Your task to perform on an android device: toggle sleep mode Image 0: 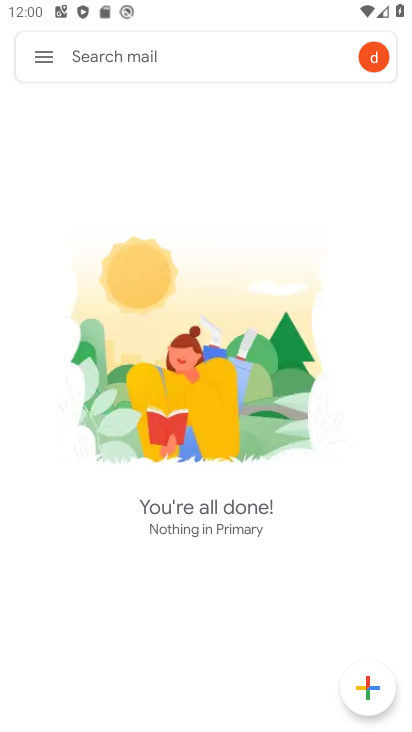
Step 0: press home button
Your task to perform on an android device: toggle sleep mode Image 1: 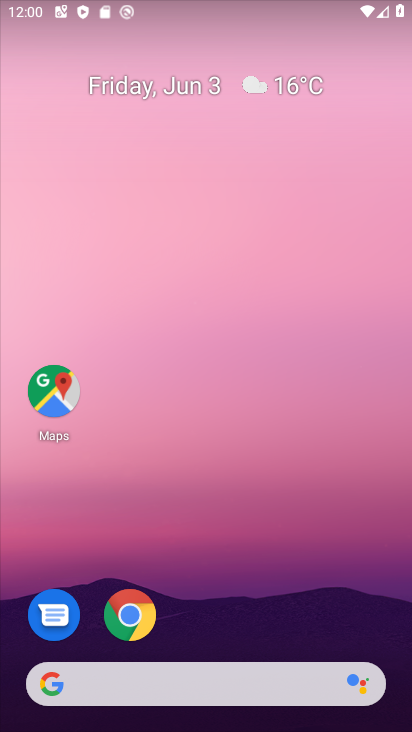
Step 1: drag from (189, 557) to (167, 262)
Your task to perform on an android device: toggle sleep mode Image 2: 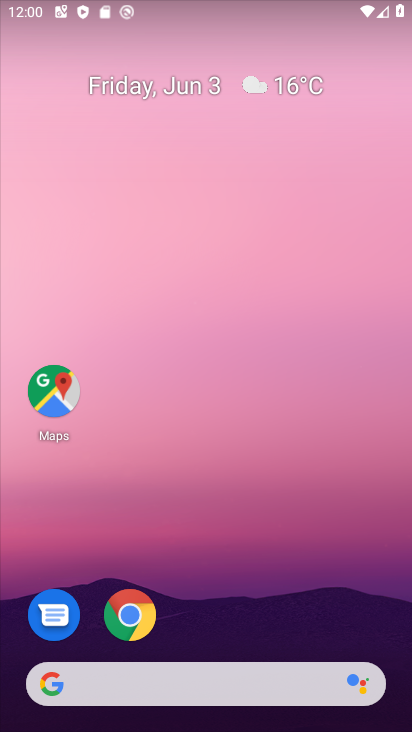
Step 2: drag from (247, 567) to (247, 328)
Your task to perform on an android device: toggle sleep mode Image 3: 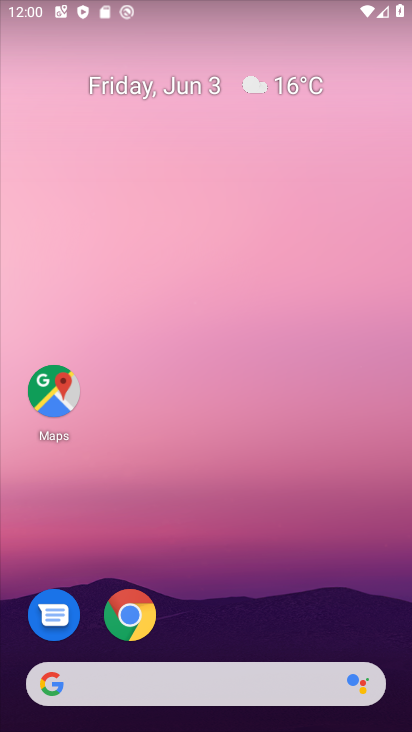
Step 3: drag from (242, 659) to (226, 213)
Your task to perform on an android device: toggle sleep mode Image 4: 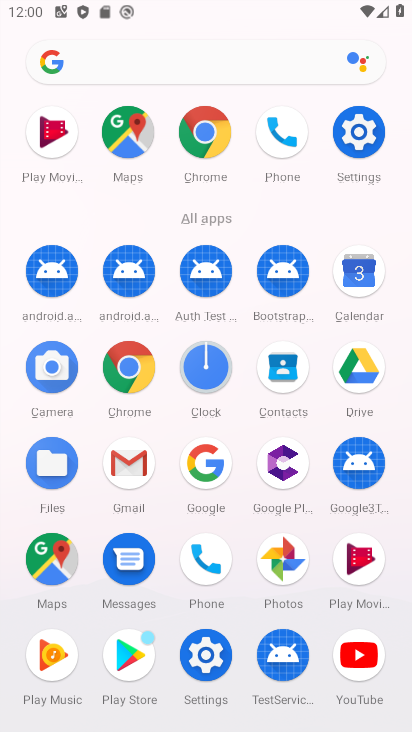
Step 4: click (350, 126)
Your task to perform on an android device: toggle sleep mode Image 5: 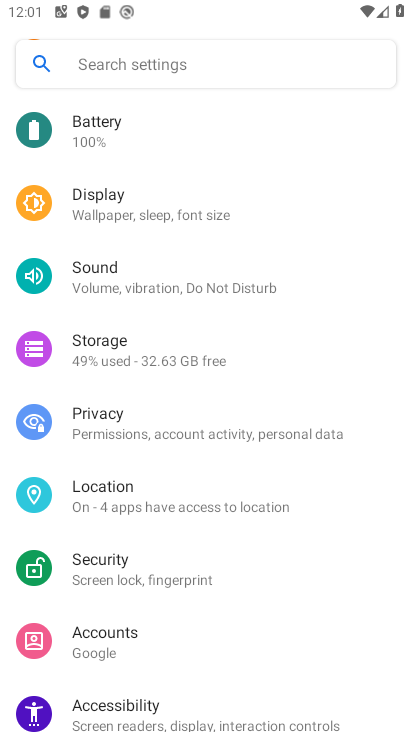
Step 5: task complete